Your task to perform on an android device: What's the weather going to be tomorrow? Image 0: 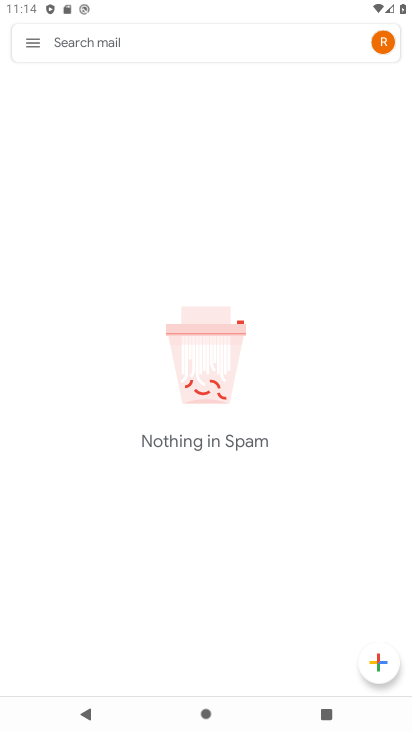
Step 0: press home button
Your task to perform on an android device: What's the weather going to be tomorrow? Image 1: 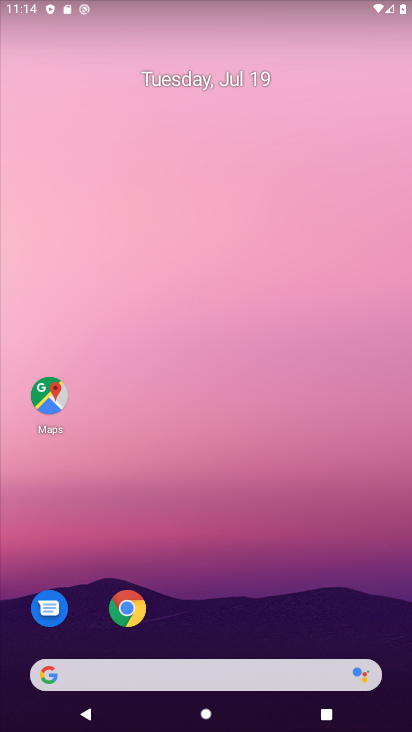
Step 1: click (54, 681)
Your task to perform on an android device: What's the weather going to be tomorrow? Image 2: 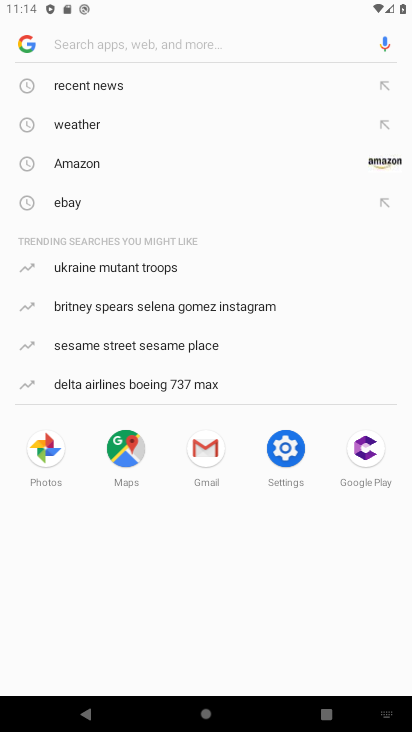
Step 2: type "weather going to be tomorrow"
Your task to perform on an android device: What's the weather going to be tomorrow? Image 3: 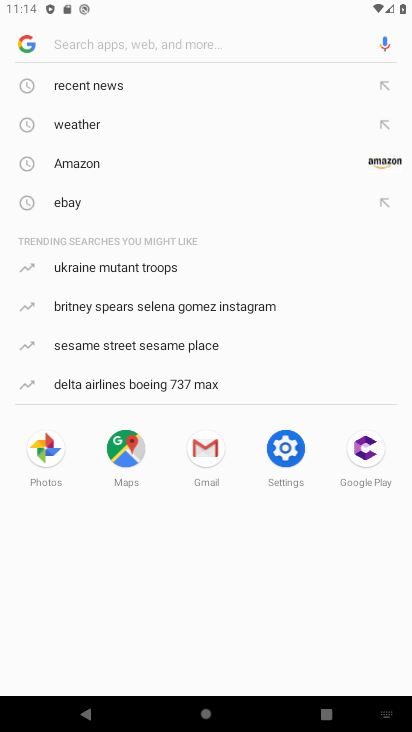
Step 3: click (100, 40)
Your task to perform on an android device: What's the weather going to be tomorrow? Image 4: 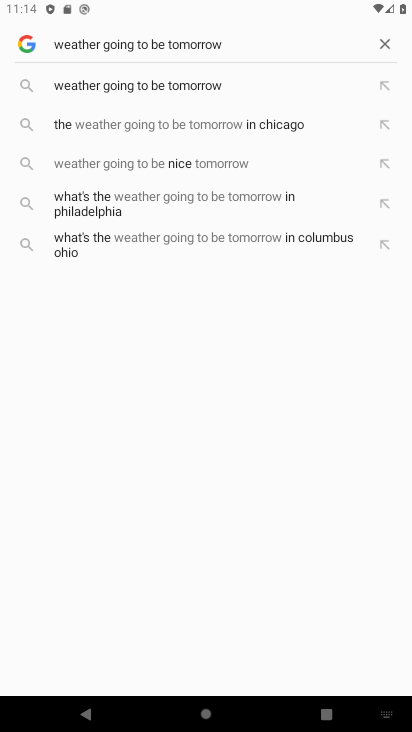
Step 4: press enter
Your task to perform on an android device: What's the weather going to be tomorrow? Image 5: 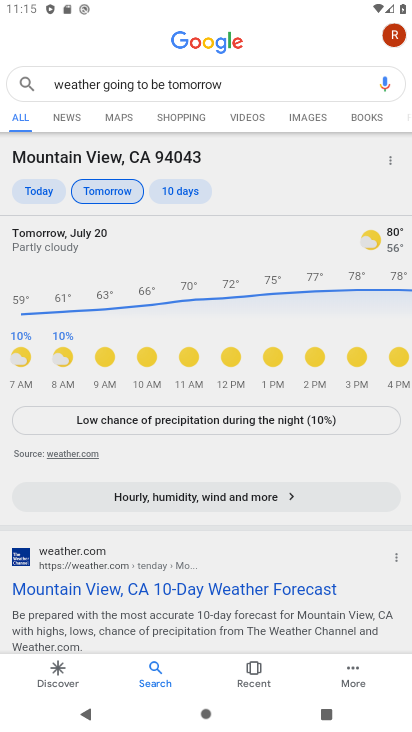
Step 5: task complete